Your task to perform on an android device: Go to settings Image 0: 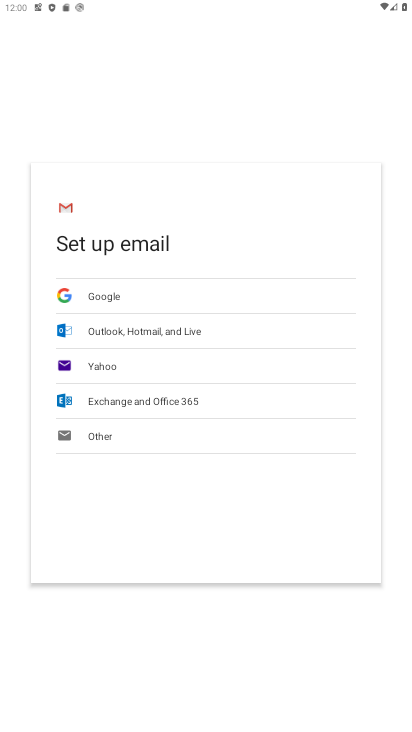
Step 0: press home button
Your task to perform on an android device: Go to settings Image 1: 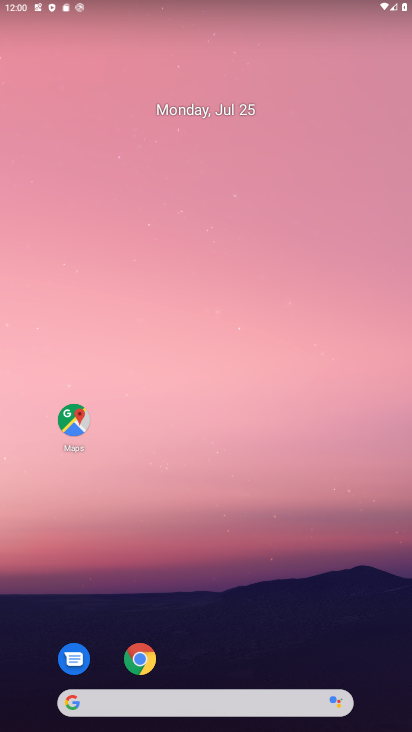
Step 1: drag from (59, 657) to (204, 218)
Your task to perform on an android device: Go to settings Image 2: 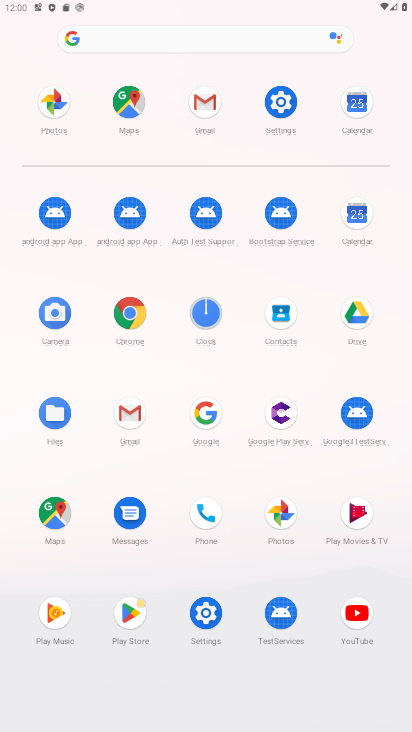
Step 2: click (149, 415)
Your task to perform on an android device: Go to settings Image 3: 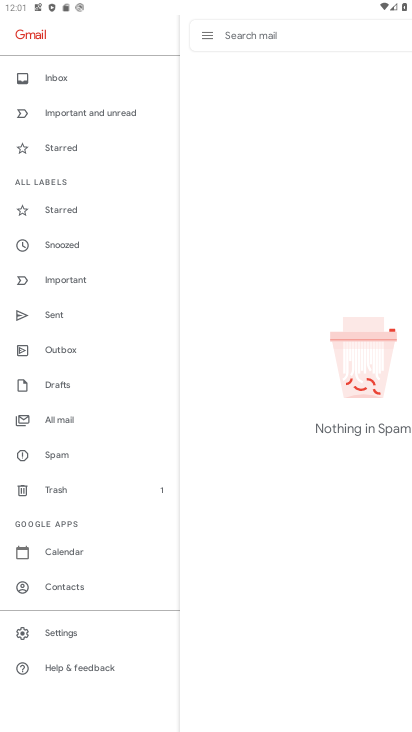
Step 3: press home button
Your task to perform on an android device: Go to settings Image 4: 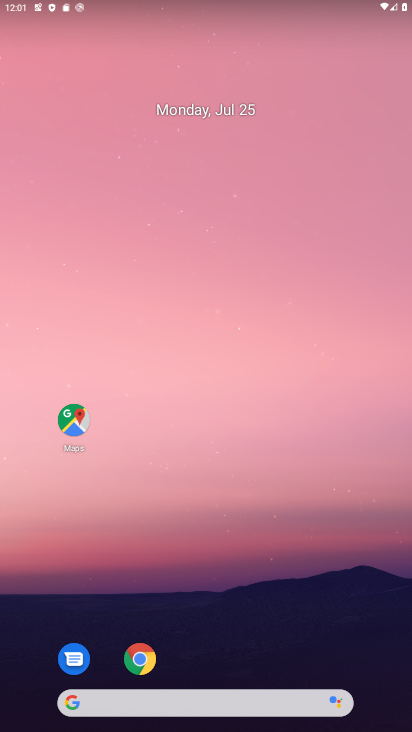
Step 4: drag from (62, 529) to (170, 178)
Your task to perform on an android device: Go to settings Image 5: 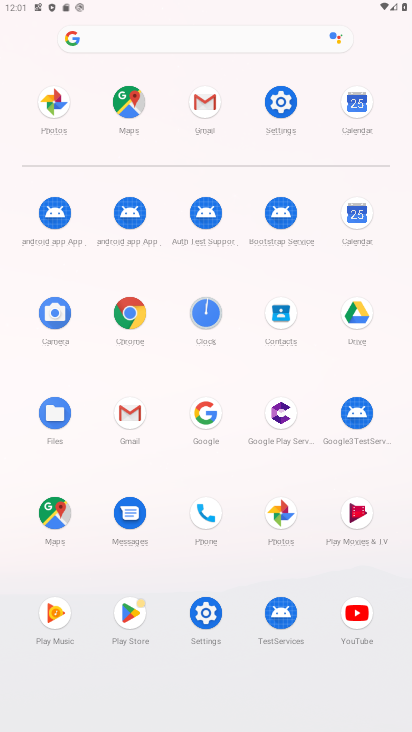
Step 5: click (213, 625)
Your task to perform on an android device: Go to settings Image 6: 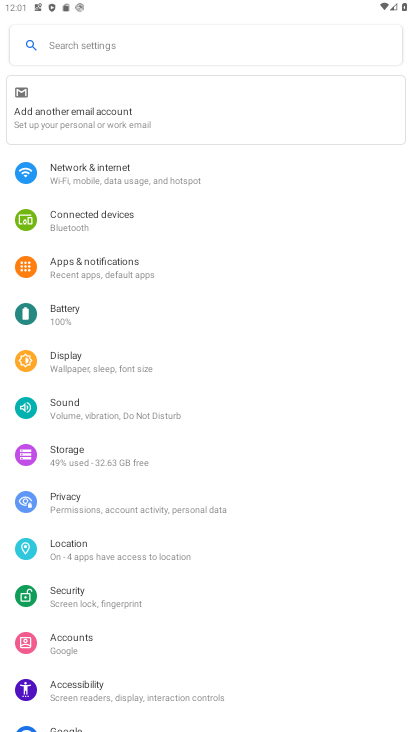
Step 6: task complete